Your task to perform on an android device: Search for the best rated headphones on Amazon. Image 0: 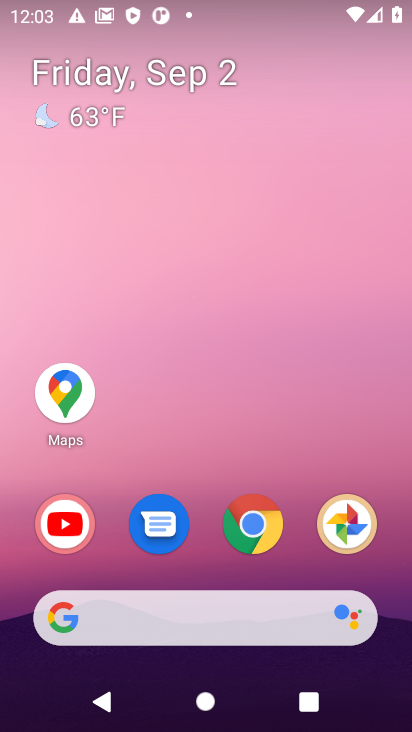
Step 0: click (251, 536)
Your task to perform on an android device: Search for the best rated headphones on Amazon. Image 1: 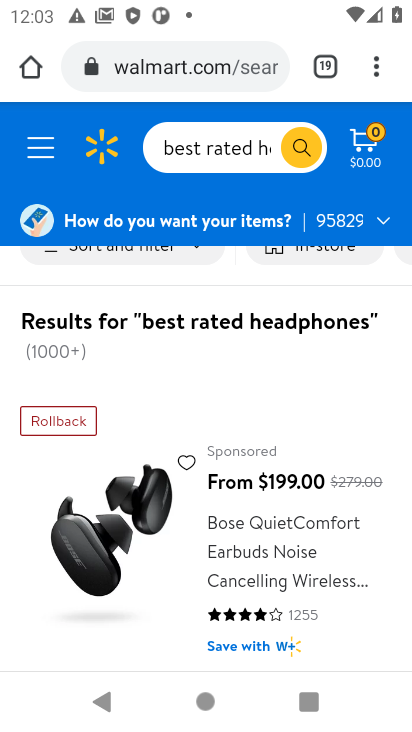
Step 1: click (321, 64)
Your task to perform on an android device: Search for the best rated headphones on Amazon. Image 2: 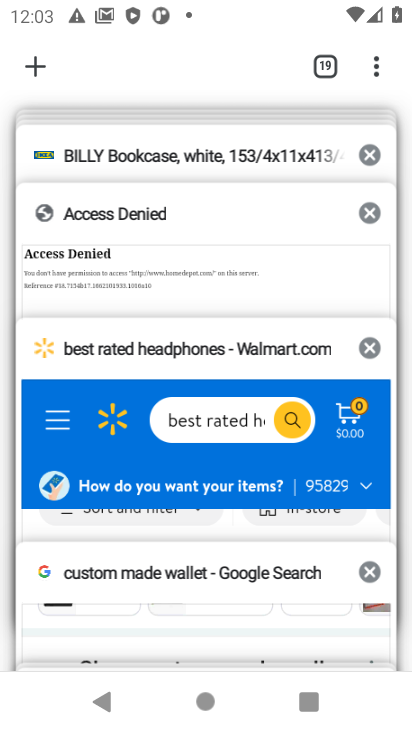
Step 2: drag from (193, 232) to (194, 636)
Your task to perform on an android device: Search for the best rated headphones on Amazon. Image 3: 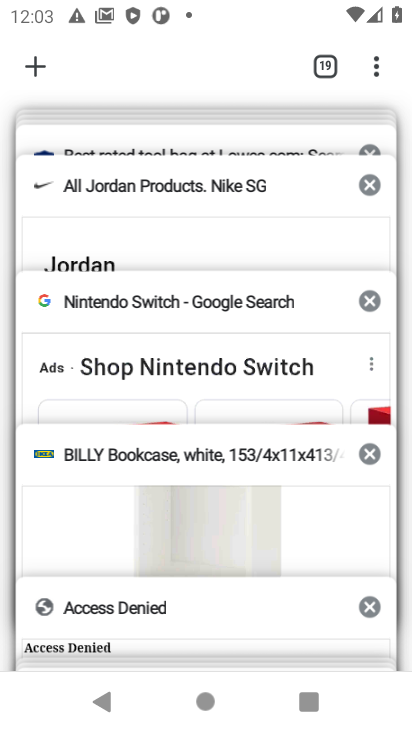
Step 3: drag from (133, 136) to (151, 622)
Your task to perform on an android device: Search for the best rated headphones on Amazon. Image 4: 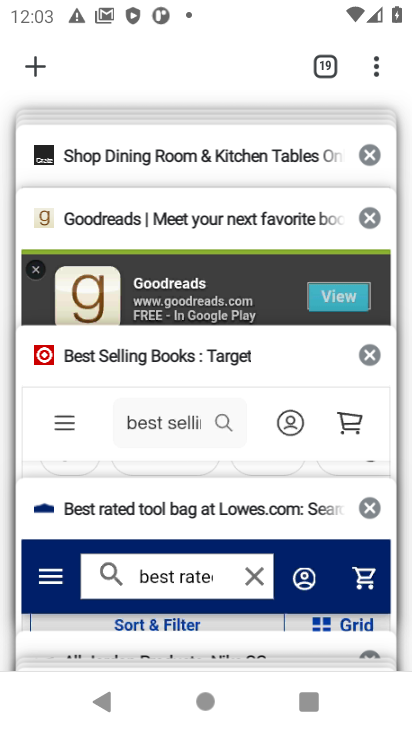
Step 4: drag from (162, 152) to (156, 632)
Your task to perform on an android device: Search for the best rated headphones on Amazon. Image 5: 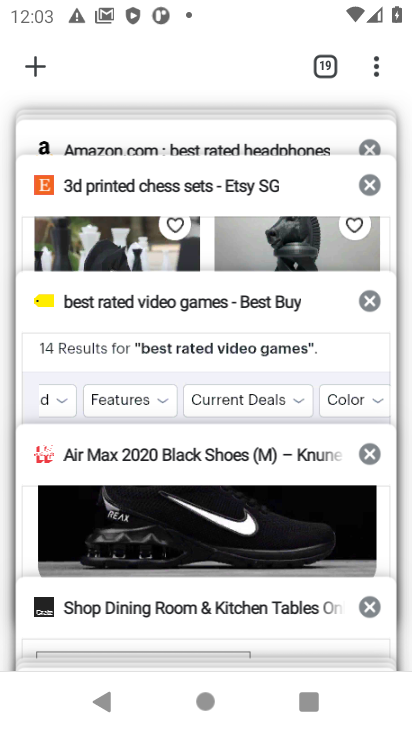
Step 5: click (197, 146)
Your task to perform on an android device: Search for the best rated headphones on Amazon. Image 6: 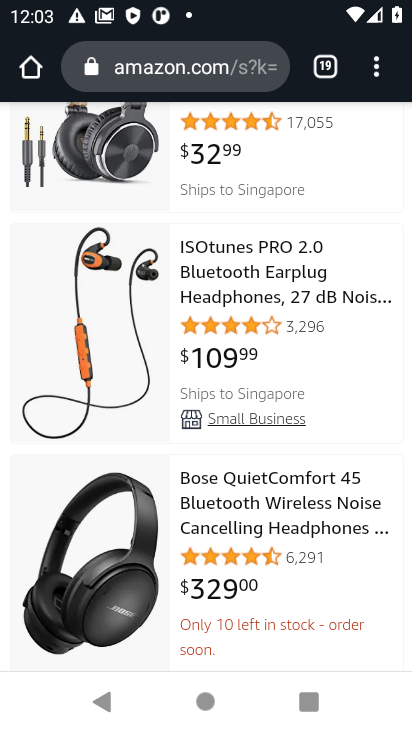
Step 6: task complete